Your task to perform on an android device: See recent photos Image 0: 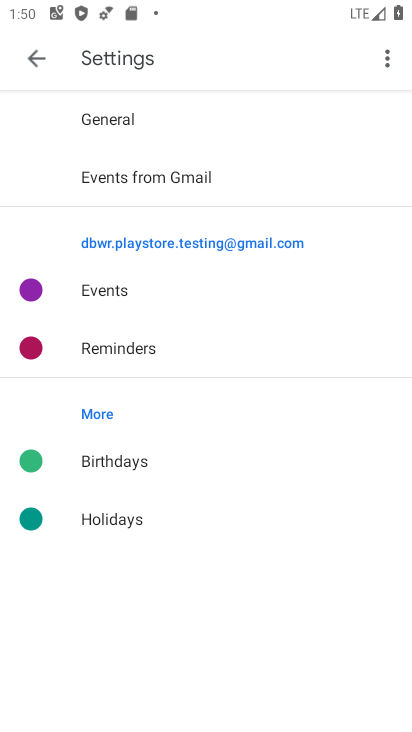
Step 0: press home button
Your task to perform on an android device: See recent photos Image 1: 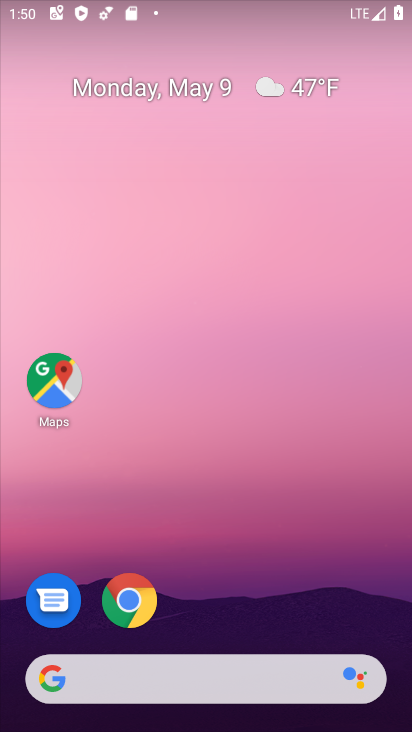
Step 1: drag from (205, 615) to (229, 39)
Your task to perform on an android device: See recent photos Image 2: 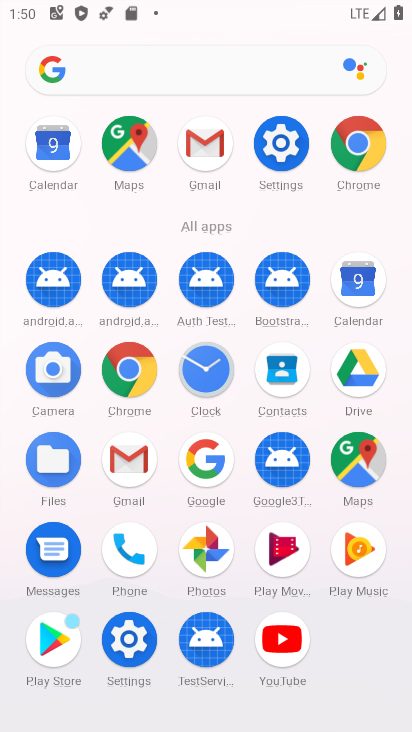
Step 2: click (200, 537)
Your task to perform on an android device: See recent photos Image 3: 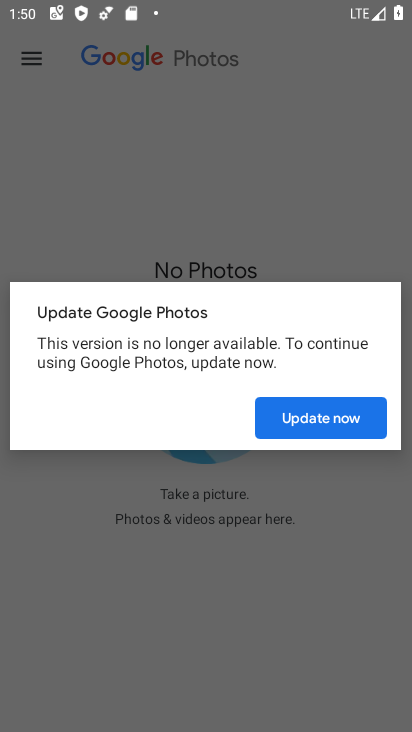
Step 3: click (316, 411)
Your task to perform on an android device: See recent photos Image 4: 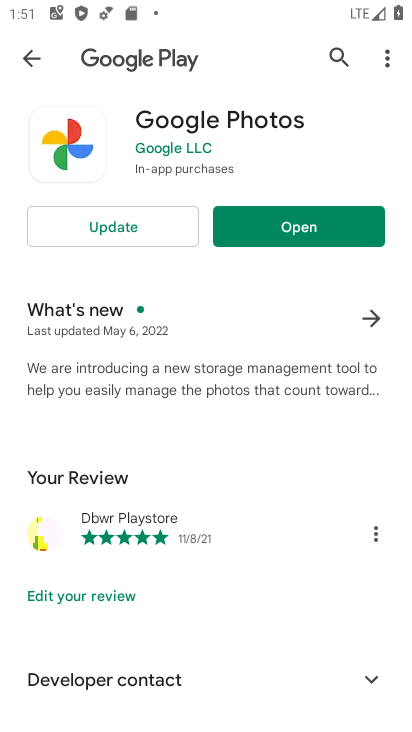
Step 4: click (123, 217)
Your task to perform on an android device: See recent photos Image 5: 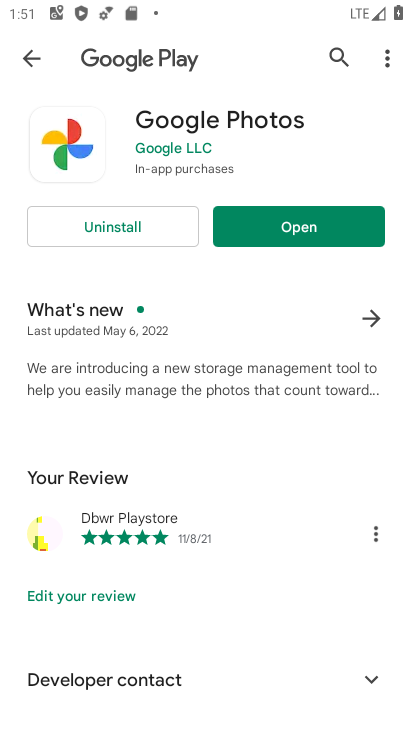
Step 5: click (298, 226)
Your task to perform on an android device: See recent photos Image 6: 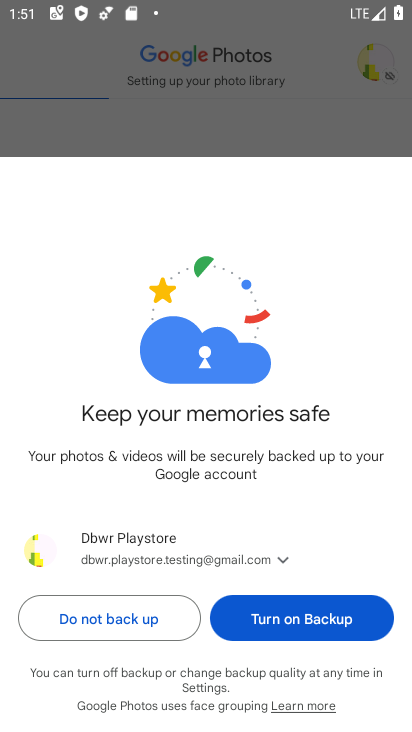
Step 6: click (295, 618)
Your task to perform on an android device: See recent photos Image 7: 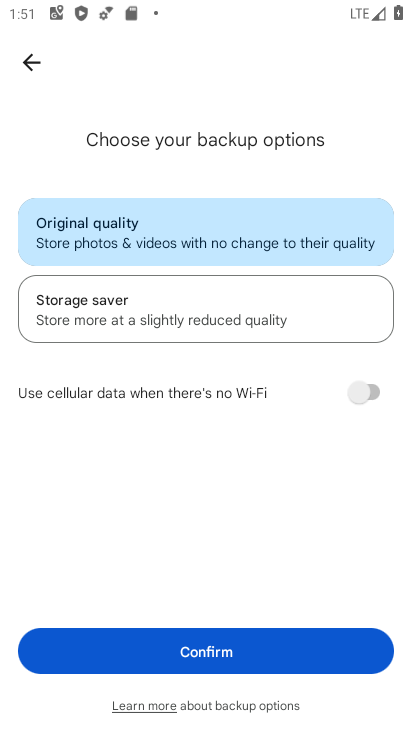
Step 7: click (217, 652)
Your task to perform on an android device: See recent photos Image 8: 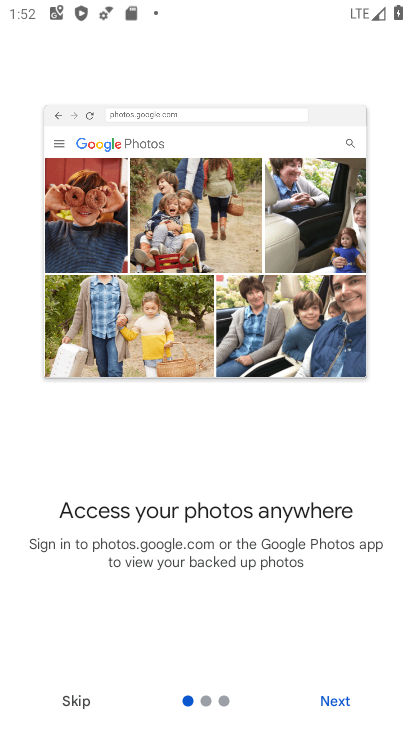
Step 8: click (321, 694)
Your task to perform on an android device: See recent photos Image 9: 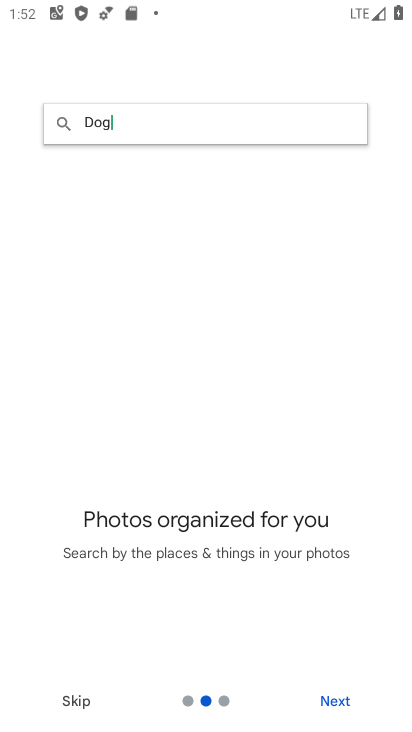
Step 9: click (337, 700)
Your task to perform on an android device: See recent photos Image 10: 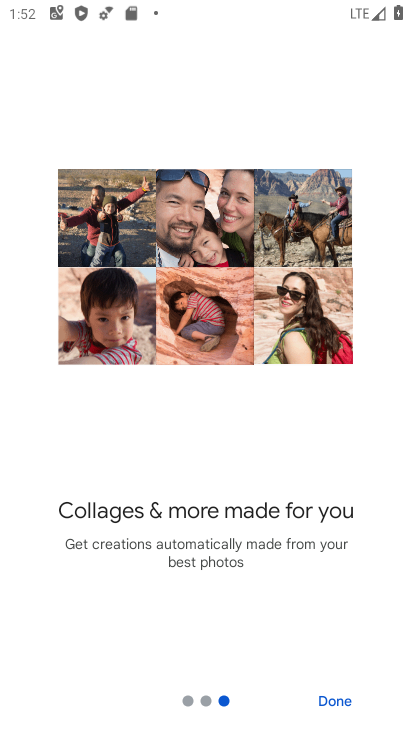
Step 10: click (337, 700)
Your task to perform on an android device: See recent photos Image 11: 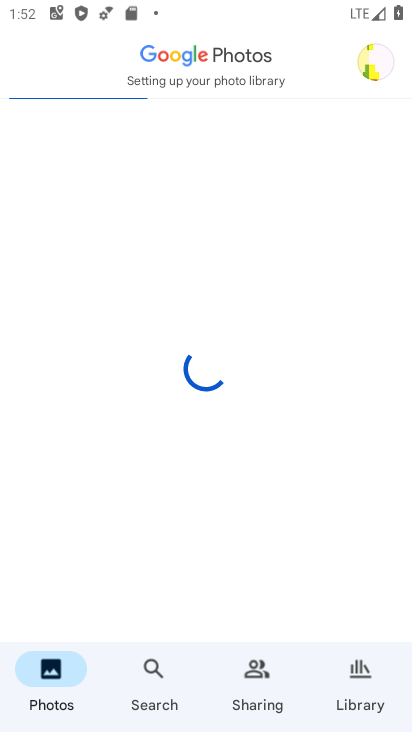
Step 11: task complete